Your task to perform on an android device: Open Maps and search for coffee Image 0: 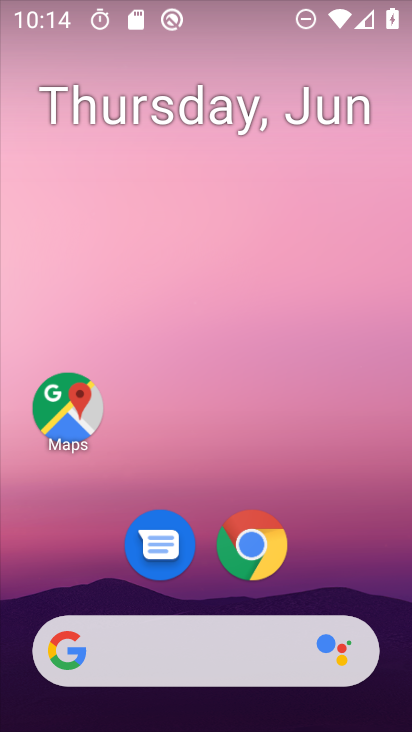
Step 0: click (72, 403)
Your task to perform on an android device: Open Maps and search for coffee Image 1: 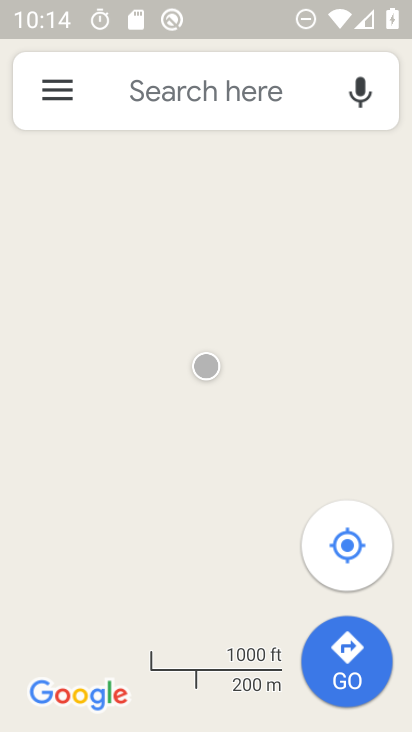
Step 1: click (240, 99)
Your task to perform on an android device: Open Maps and search for coffee Image 2: 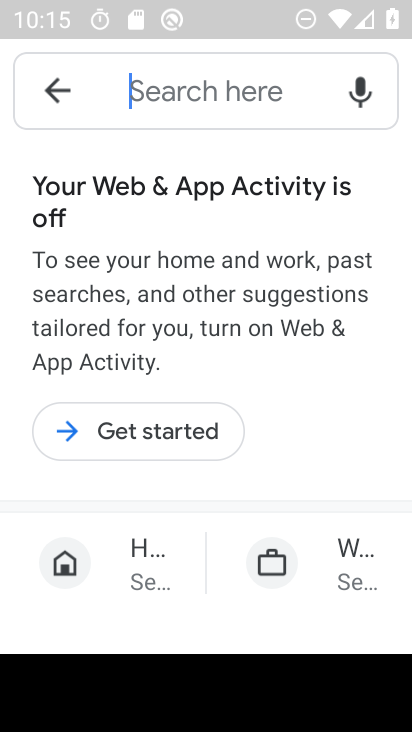
Step 2: type "coffee"
Your task to perform on an android device: Open Maps and search for coffee Image 3: 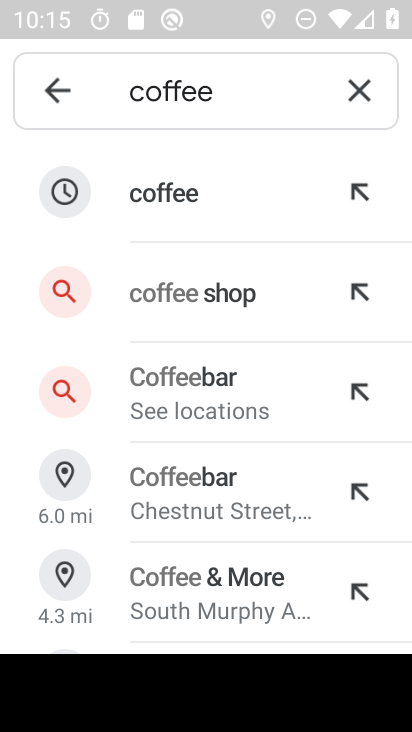
Step 3: click (246, 185)
Your task to perform on an android device: Open Maps and search for coffee Image 4: 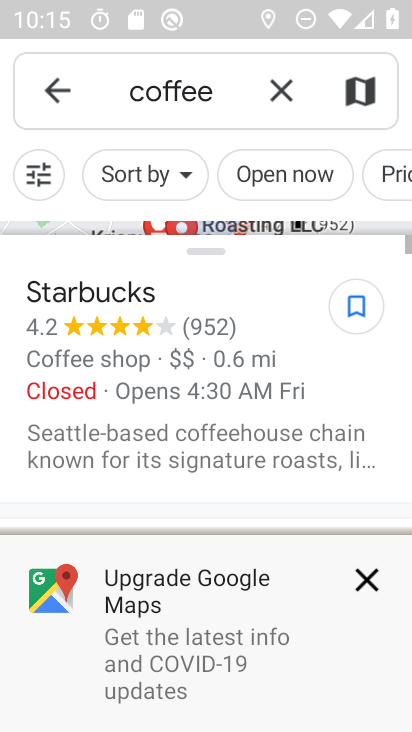
Step 4: task complete